Your task to perform on an android device: Go to internet settings Image 0: 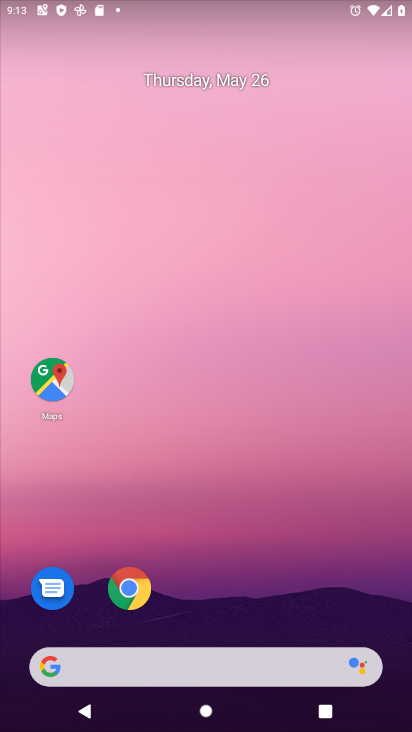
Step 0: drag from (368, 600) to (301, 85)
Your task to perform on an android device: Go to internet settings Image 1: 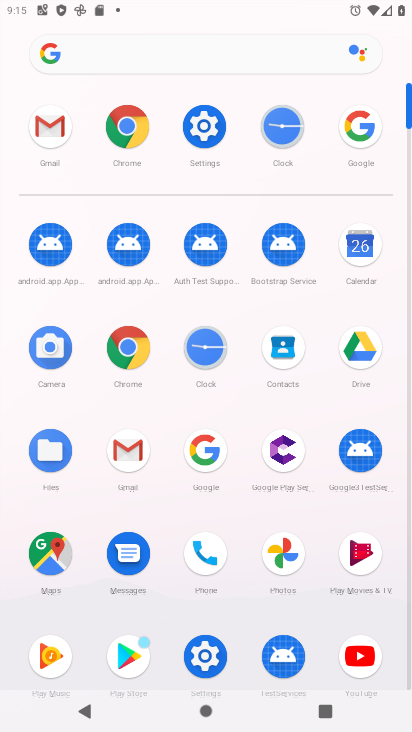
Step 1: click (213, 669)
Your task to perform on an android device: Go to internet settings Image 2: 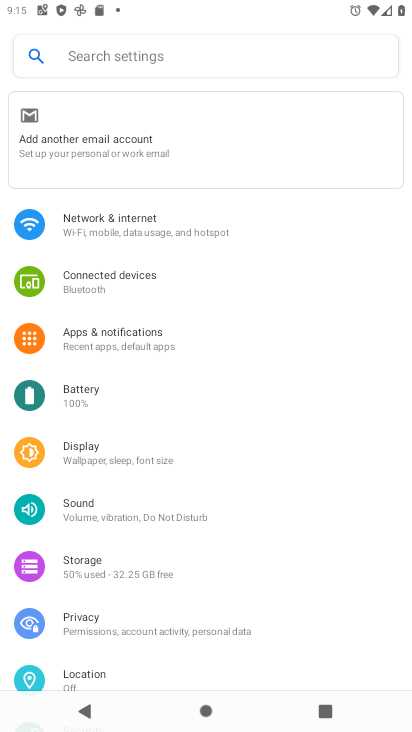
Step 2: click (182, 231)
Your task to perform on an android device: Go to internet settings Image 3: 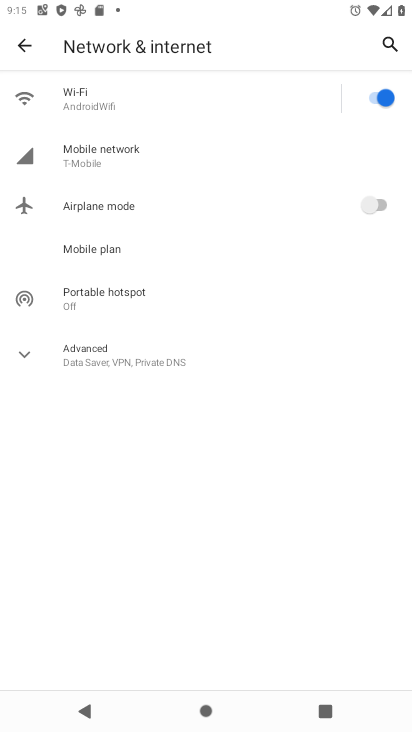
Step 3: task complete